Your task to perform on an android device: Open the calendar app, open the side menu, and click the "Day" option Image 0: 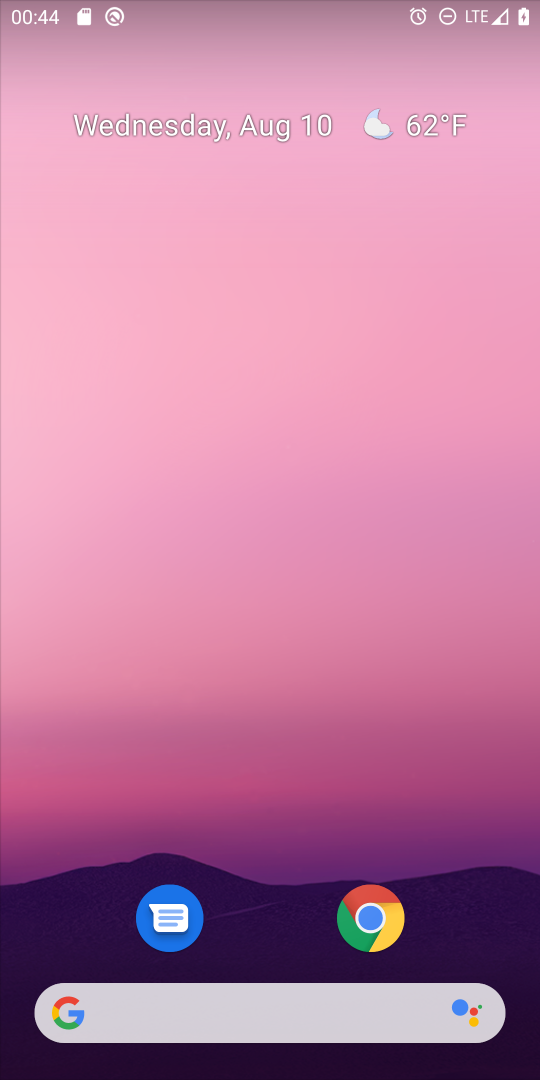
Step 0: drag from (270, 886) to (318, 83)
Your task to perform on an android device: Open the calendar app, open the side menu, and click the "Day" option Image 1: 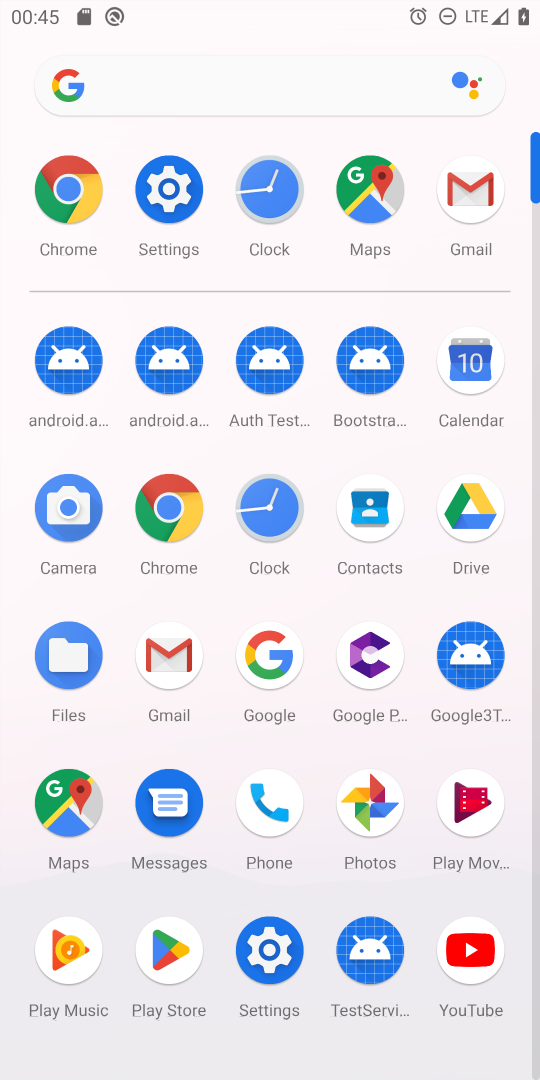
Step 1: click (504, 379)
Your task to perform on an android device: Open the calendar app, open the side menu, and click the "Day" option Image 2: 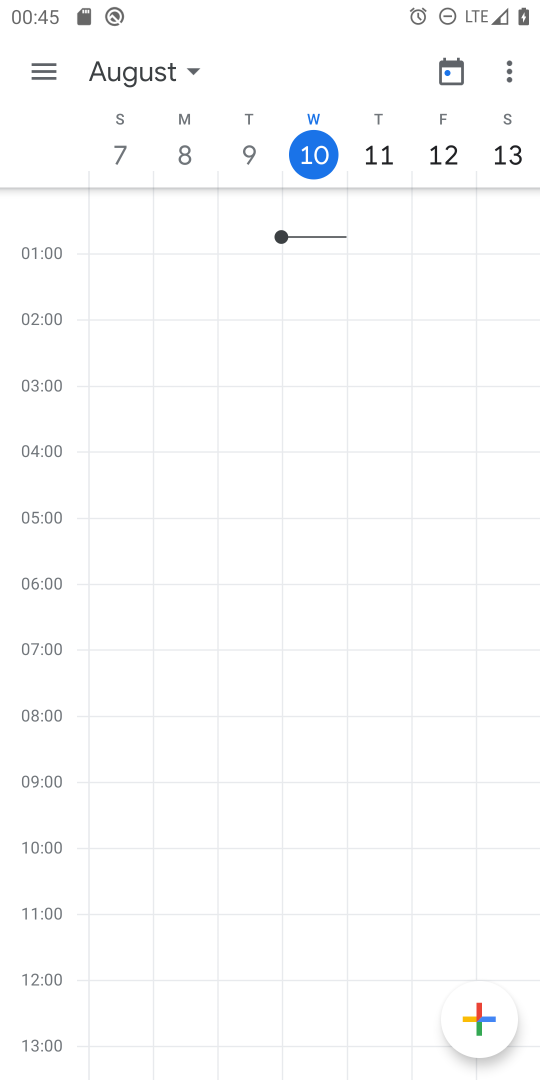
Step 2: click (44, 79)
Your task to perform on an android device: Open the calendar app, open the side menu, and click the "Day" option Image 3: 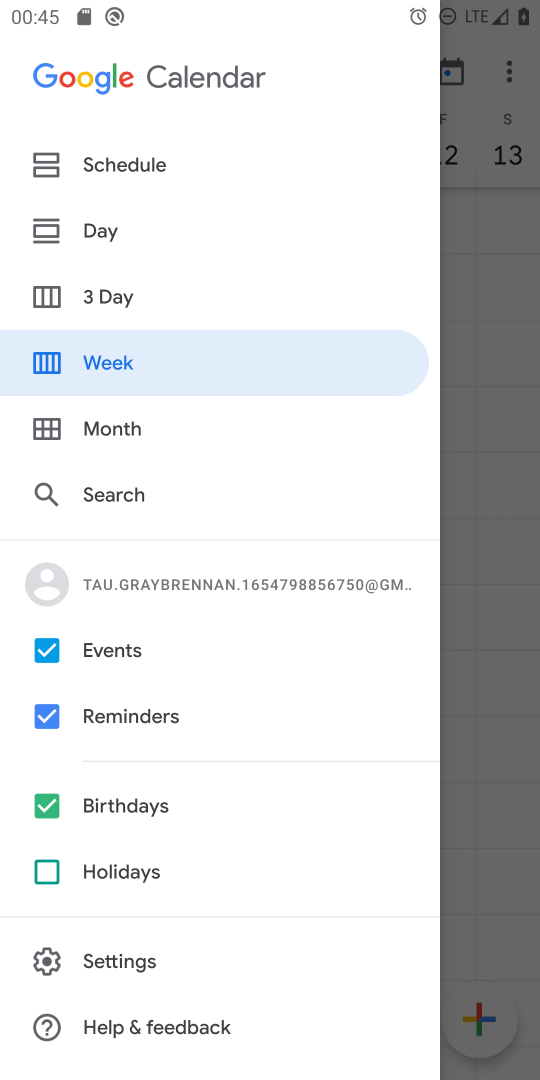
Step 3: click (109, 225)
Your task to perform on an android device: Open the calendar app, open the side menu, and click the "Day" option Image 4: 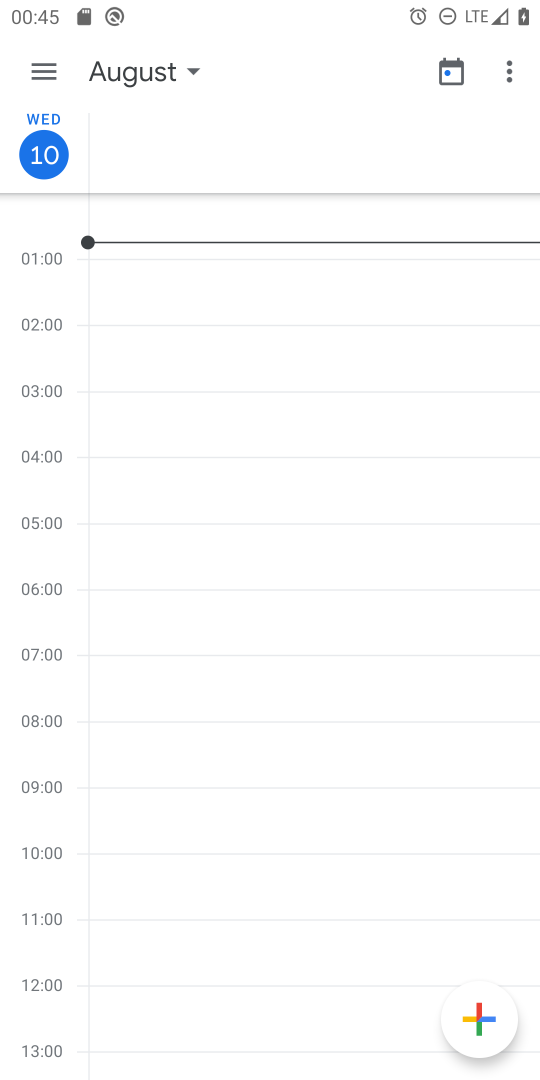
Step 4: task complete